Your task to perform on an android device: all mails in gmail Image 0: 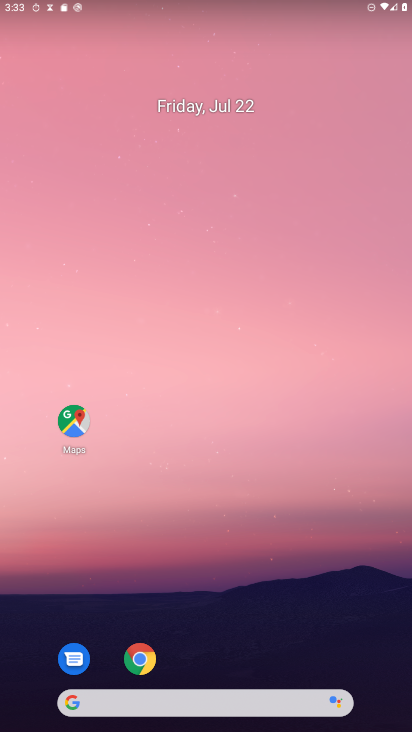
Step 0: drag from (301, 587) to (275, 124)
Your task to perform on an android device: all mails in gmail Image 1: 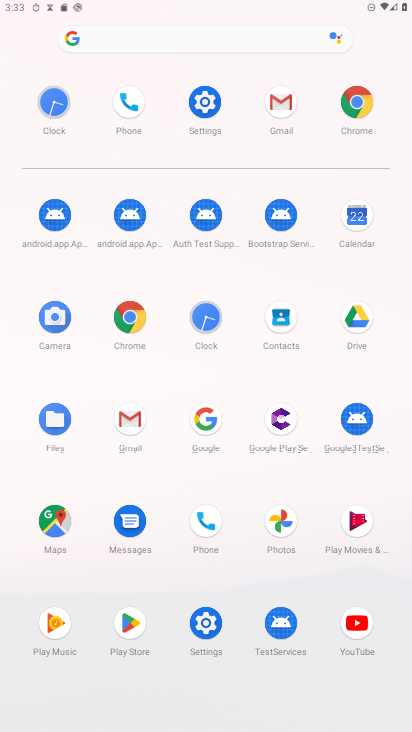
Step 1: click (287, 100)
Your task to perform on an android device: all mails in gmail Image 2: 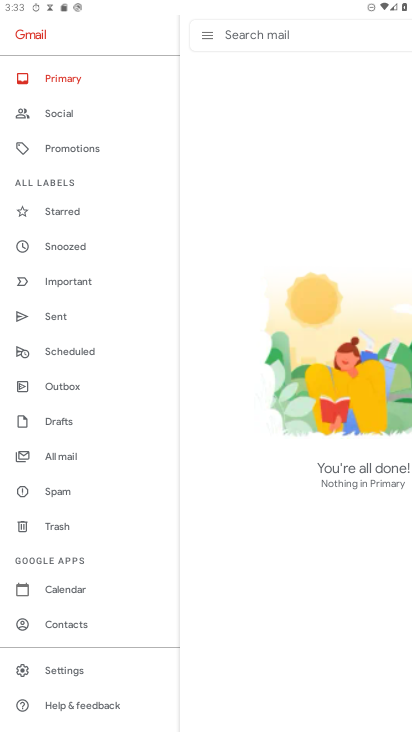
Step 2: click (50, 459)
Your task to perform on an android device: all mails in gmail Image 3: 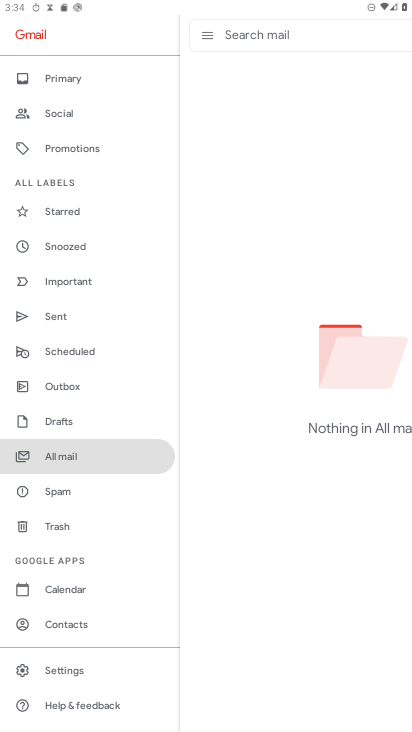
Step 3: task complete